Your task to perform on an android device: Go to Google Image 0: 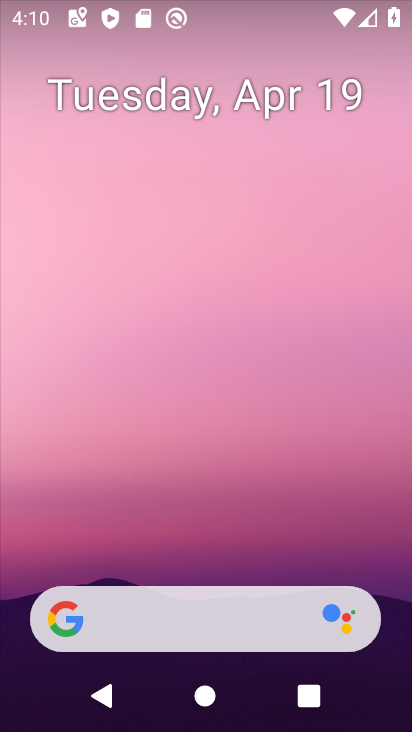
Step 0: drag from (258, 568) to (254, 152)
Your task to perform on an android device: Go to Google Image 1: 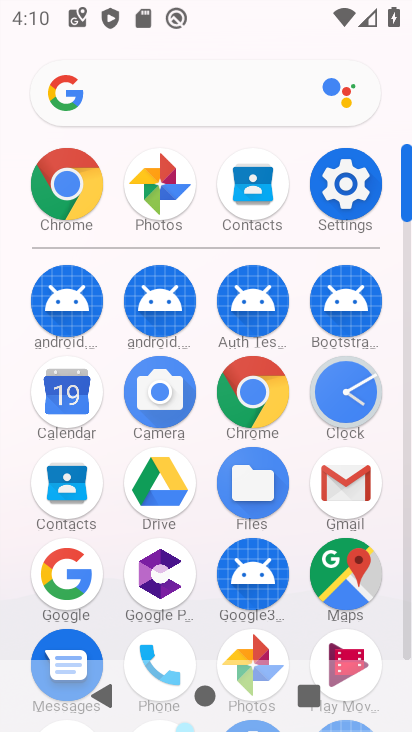
Step 1: click (62, 570)
Your task to perform on an android device: Go to Google Image 2: 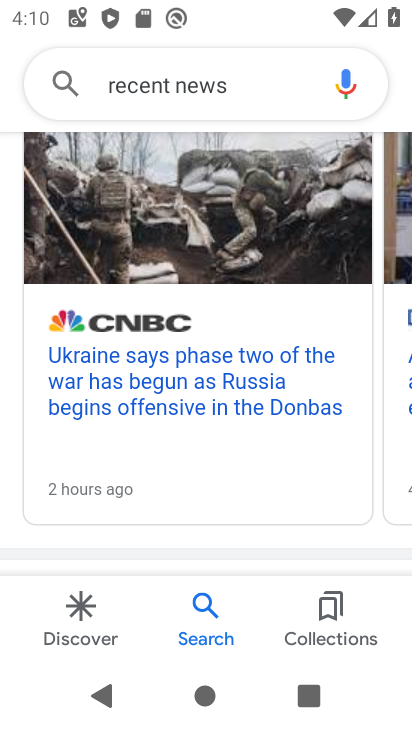
Step 2: task complete